Your task to perform on an android device: Go to CNN.com Image 0: 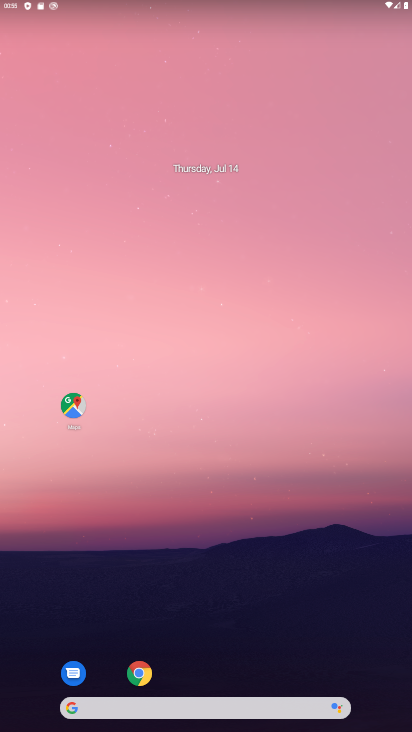
Step 0: drag from (309, 644) to (297, 287)
Your task to perform on an android device: Go to CNN.com Image 1: 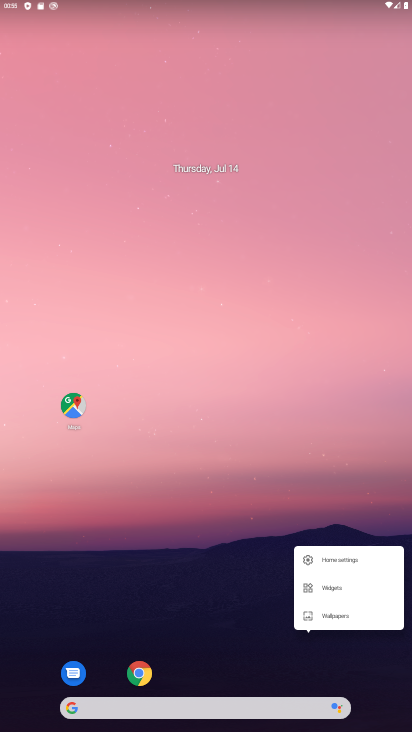
Step 1: click (297, 287)
Your task to perform on an android device: Go to CNN.com Image 2: 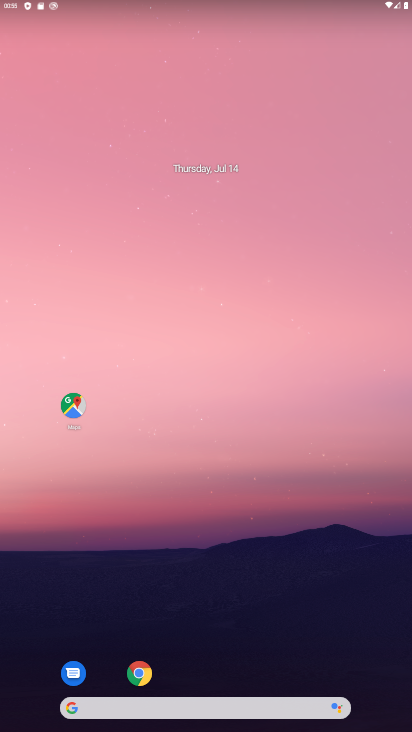
Step 2: drag from (247, 653) to (264, 346)
Your task to perform on an android device: Go to CNN.com Image 3: 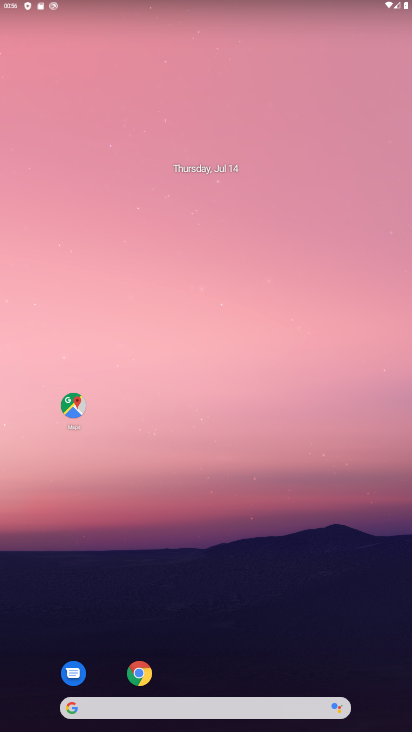
Step 3: drag from (239, 654) to (254, 155)
Your task to perform on an android device: Go to CNN.com Image 4: 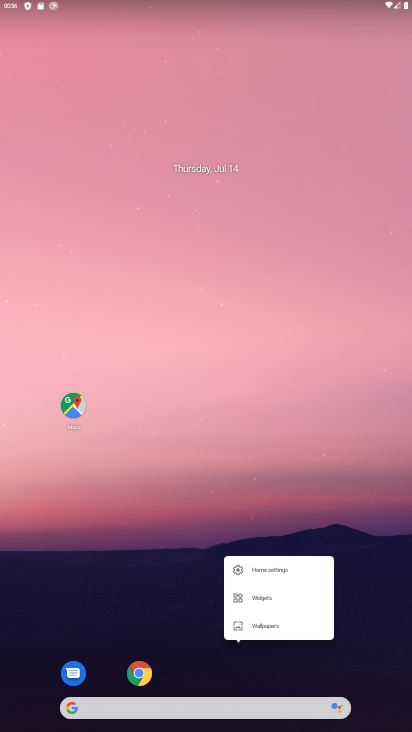
Step 4: click (192, 570)
Your task to perform on an android device: Go to CNN.com Image 5: 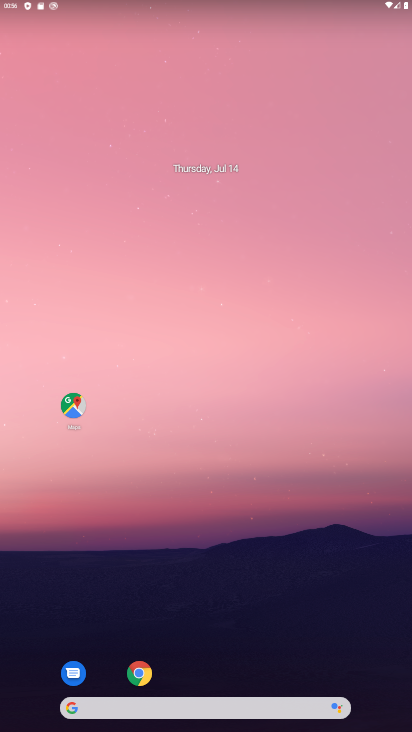
Step 5: click (137, 682)
Your task to perform on an android device: Go to CNN.com Image 6: 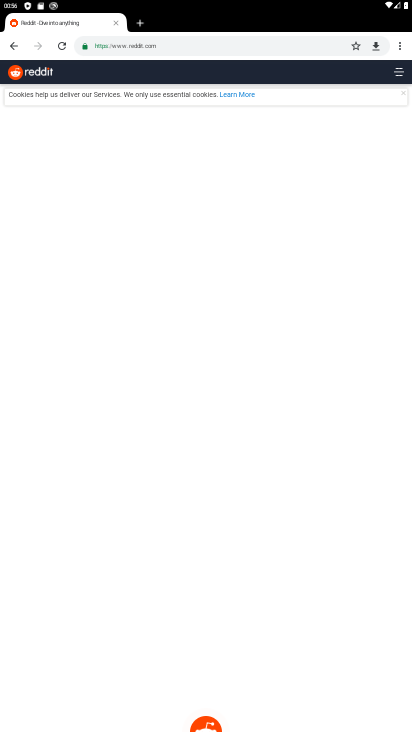
Step 6: click (257, 52)
Your task to perform on an android device: Go to CNN.com Image 7: 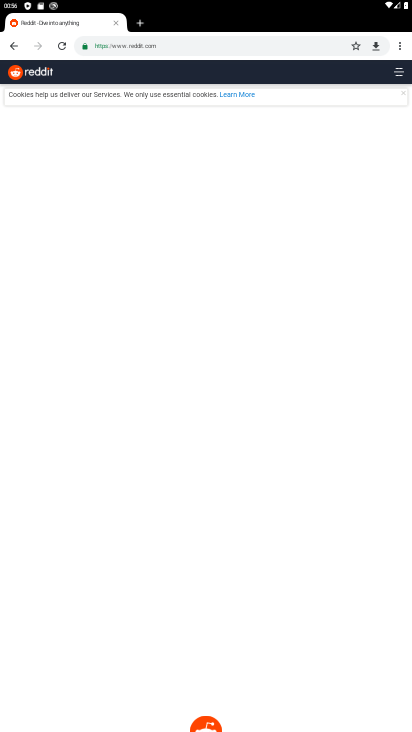
Step 7: click (257, 52)
Your task to perform on an android device: Go to CNN.com Image 8: 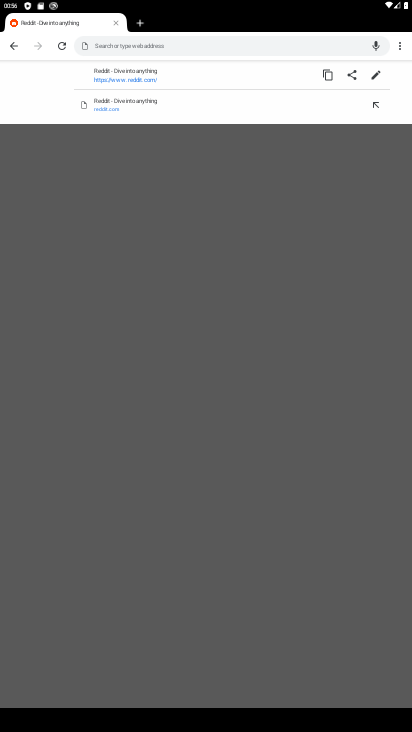
Step 8: type "cnn.com"
Your task to perform on an android device: Go to CNN.com Image 9: 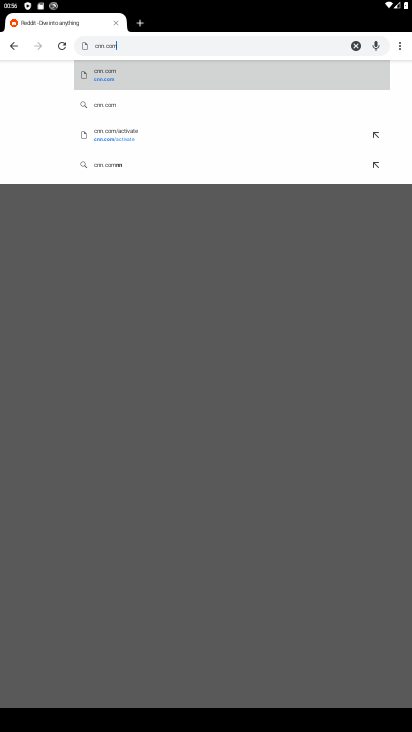
Step 9: click (171, 80)
Your task to perform on an android device: Go to CNN.com Image 10: 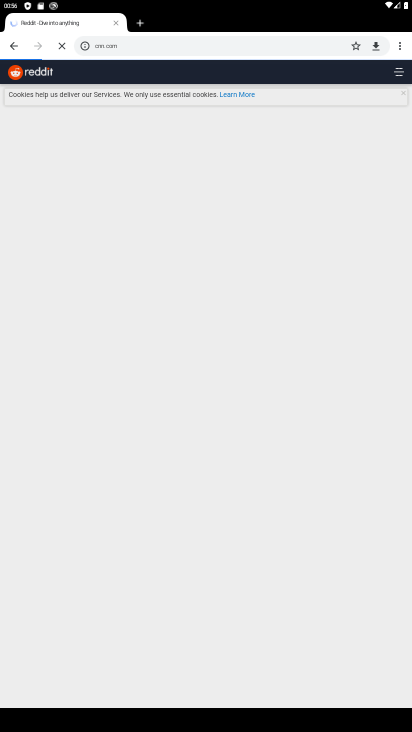
Step 10: task complete